Your task to perform on an android device: toggle show notifications on the lock screen Image 0: 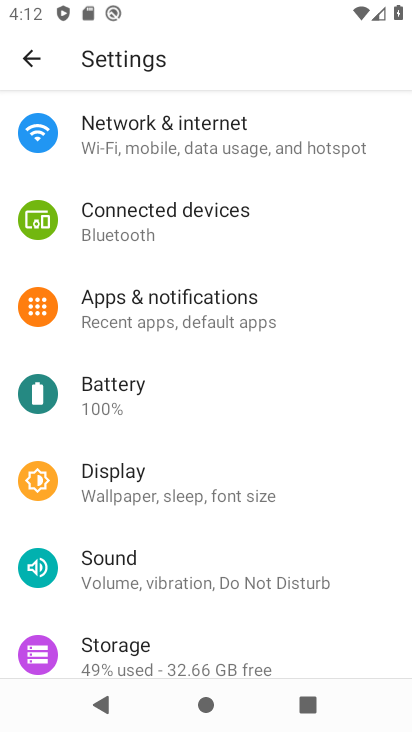
Step 0: click (159, 289)
Your task to perform on an android device: toggle show notifications on the lock screen Image 1: 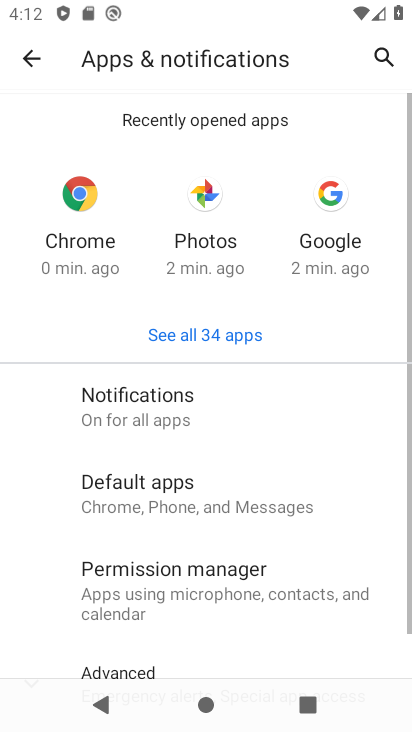
Step 1: click (152, 394)
Your task to perform on an android device: toggle show notifications on the lock screen Image 2: 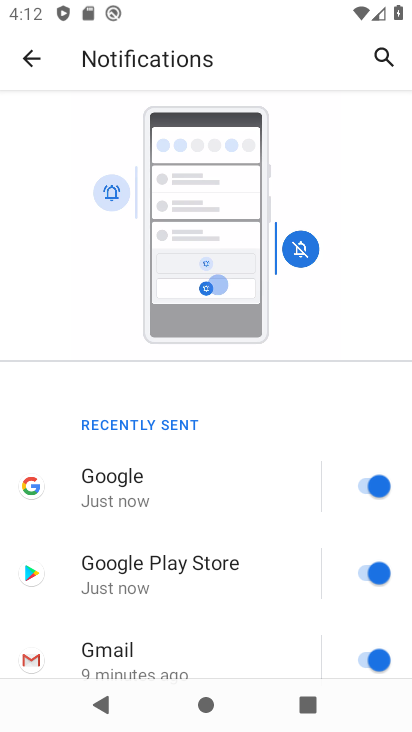
Step 2: drag from (198, 609) to (197, 234)
Your task to perform on an android device: toggle show notifications on the lock screen Image 3: 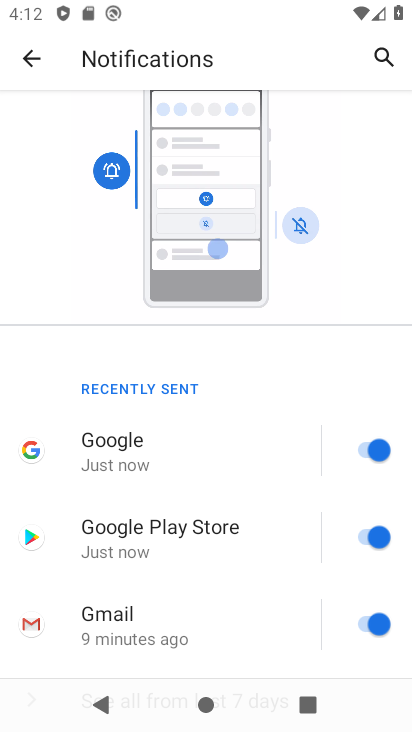
Step 3: drag from (176, 596) to (213, 337)
Your task to perform on an android device: toggle show notifications on the lock screen Image 4: 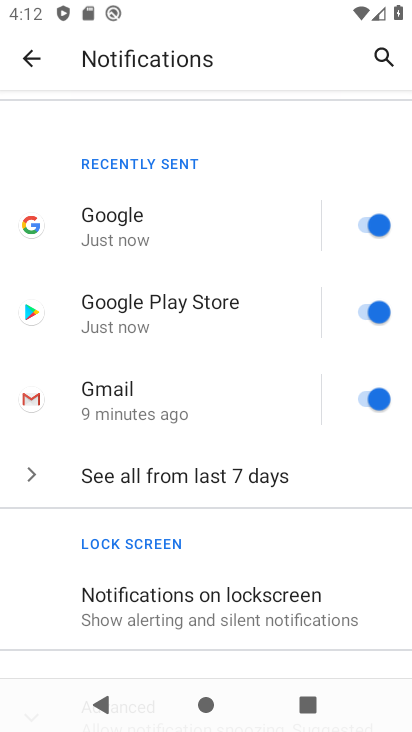
Step 4: click (180, 588)
Your task to perform on an android device: toggle show notifications on the lock screen Image 5: 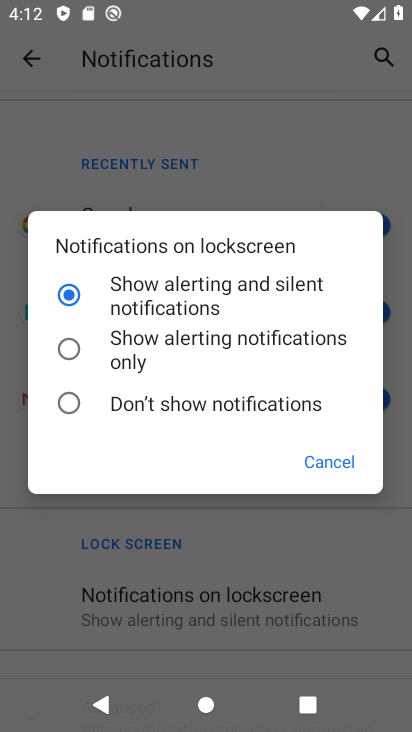
Step 5: click (65, 407)
Your task to perform on an android device: toggle show notifications on the lock screen Image 6: 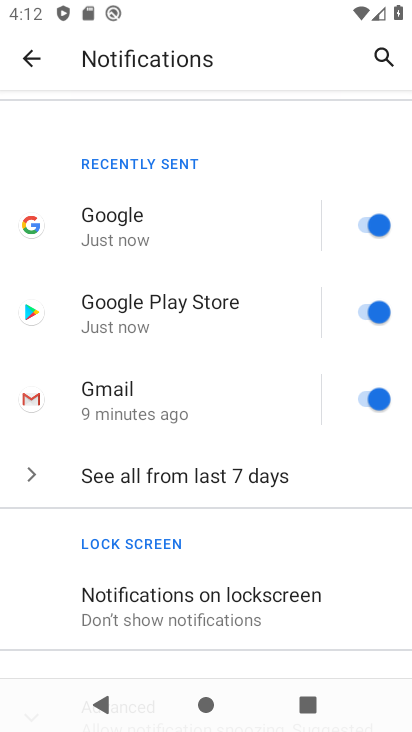
Step 6: task complete